Your task to perform on an android device: Open battery settings Image 0: 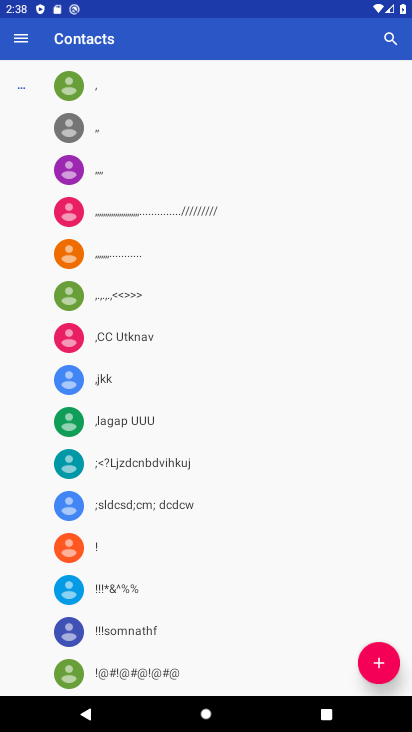
Step 0: press home button
Your task to perform on an android device: Open battery settings Image 1: 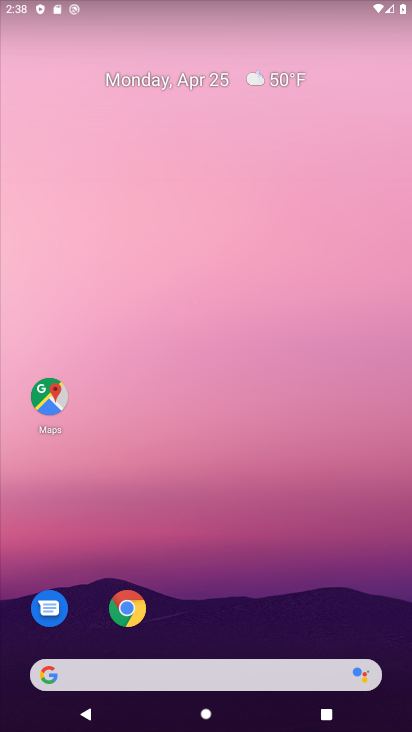
Step 1: drag from (218, 492) to (227, 222)
Your task to perform on an android device: Open battery settings Image 2: 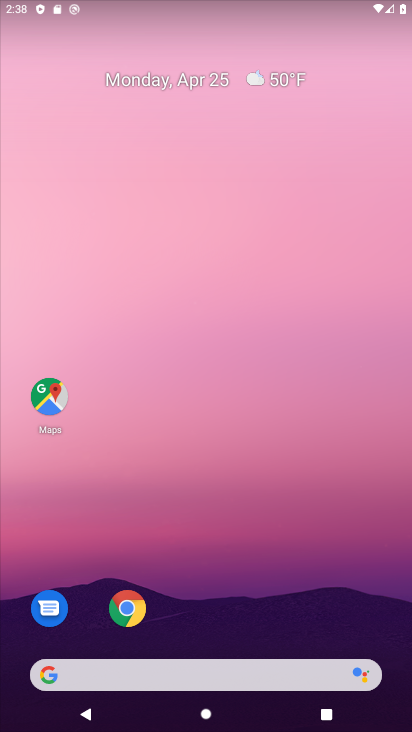
Step 2: drag from (218, 637) to (217, 159)
Your task to perform on an android device: Open battery settings Image 3: 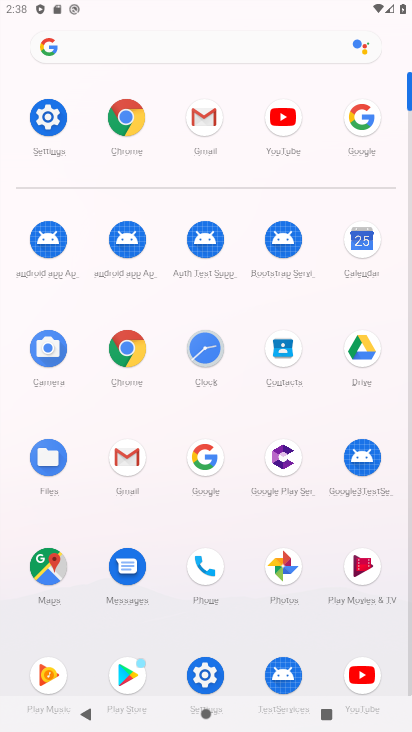
Step 3: click (45, 125)
Your task to perform on an android device: Open battery settings Image 4: 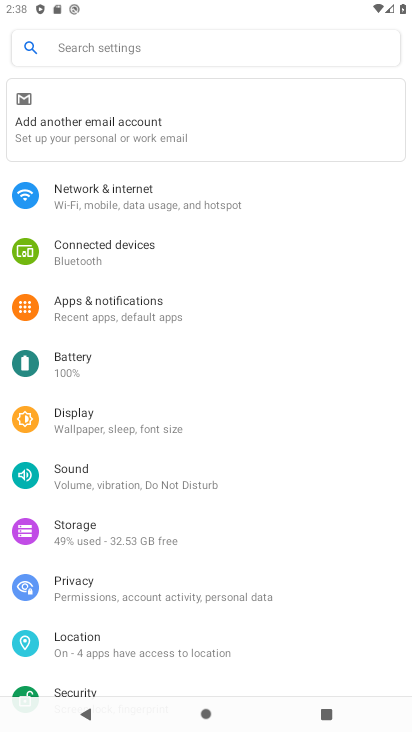
Step 4: click (91, 366)
Your task to perform on an android device: Open battery settings Image 5: 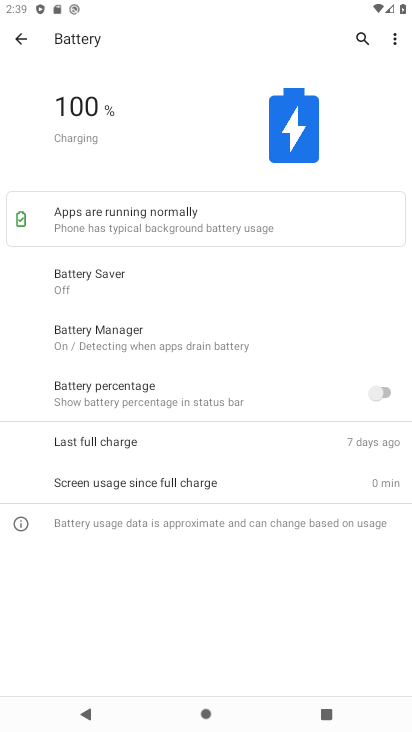
Step 5: task complete